Your task to perform on an android device: Go to Maps Image 0: 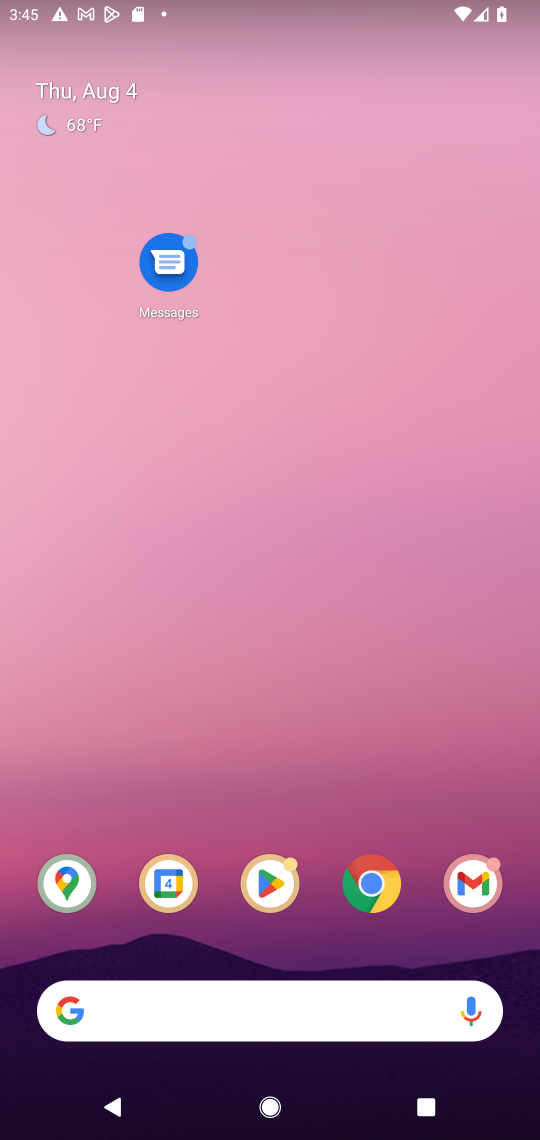
Step 0: drag from (335, 968) to (334, 59)
Your task to perform on an android device: Go to Maps Image 1: 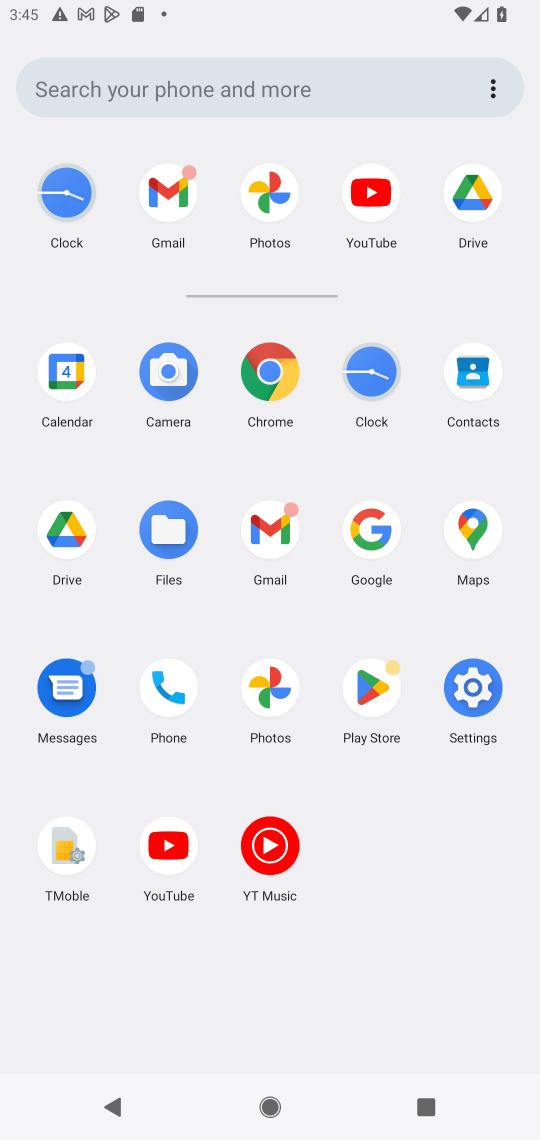
Step 1: click (470, 529)
Your task to perform on an android device: Go to Maps Image 2: 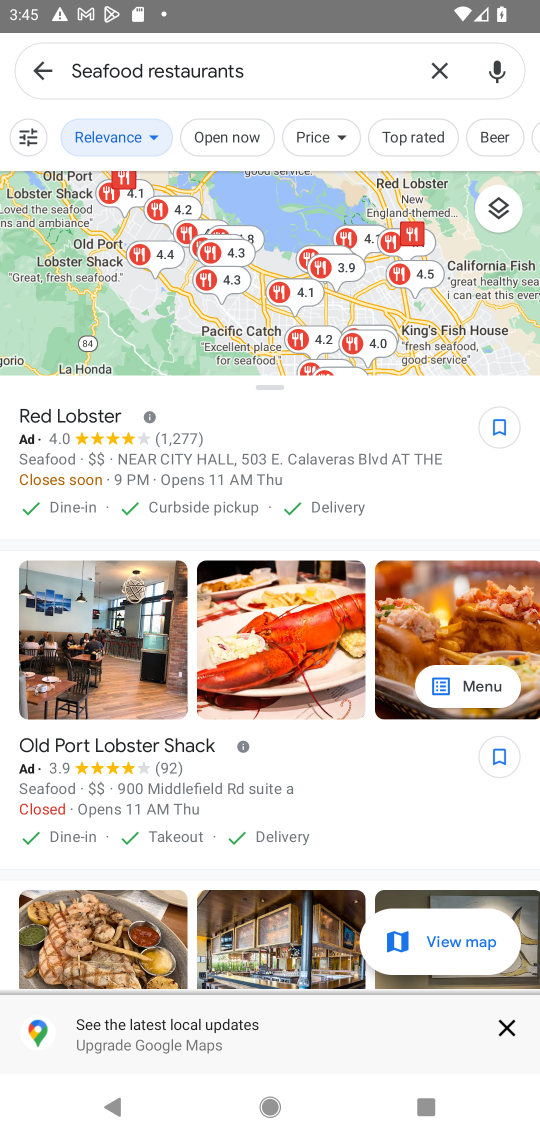
Step 2: task complete